Your task to perform on an android device: What is the news today? Image 0: 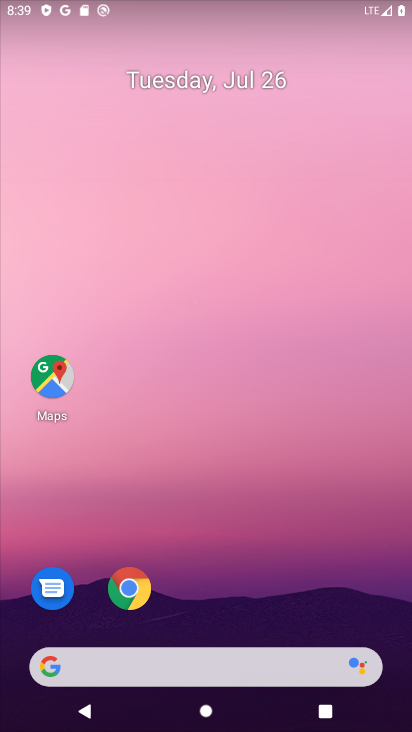
Step 0: press home button
Your task to perform on an android device: What is the news today? Image 1: 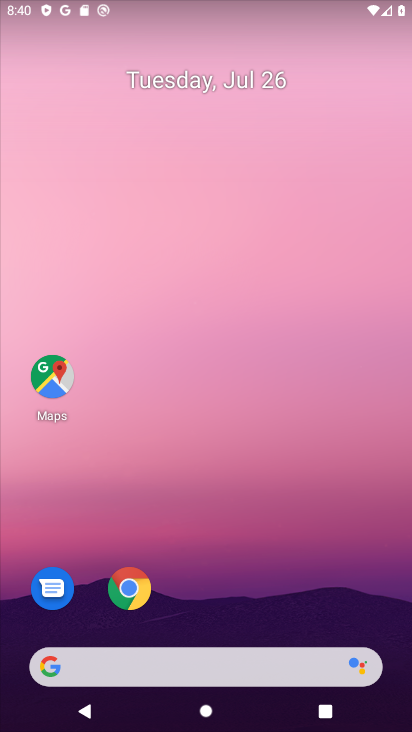
Step 1: task complete